Your task to perform on an android device: turn off notifications settings in the gmail app Image 0: 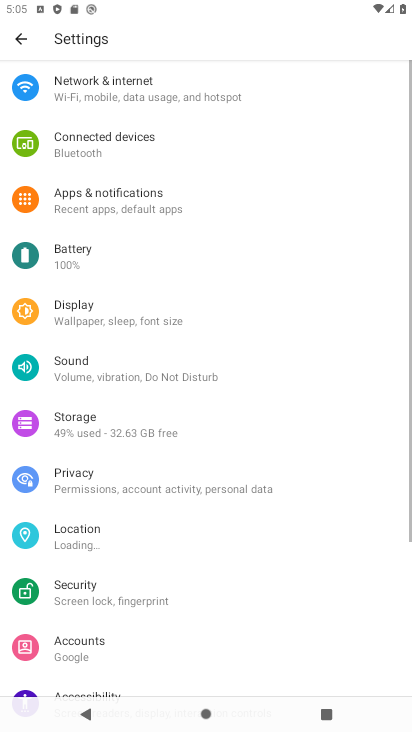
Step 0: press home button
Your task to perform on an android device: turn off notifications settings in the gmail app Image 1: 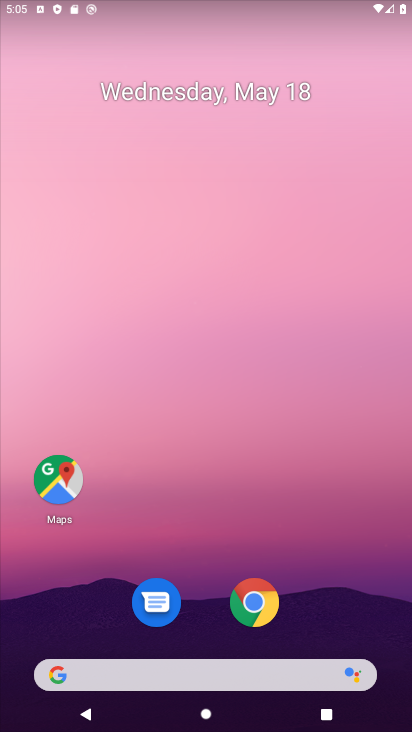
Step 1: drag from (240, 638) to (263, 19)
Your task to perform on an android device: turn off notifications settings in the gmail app Image 2: 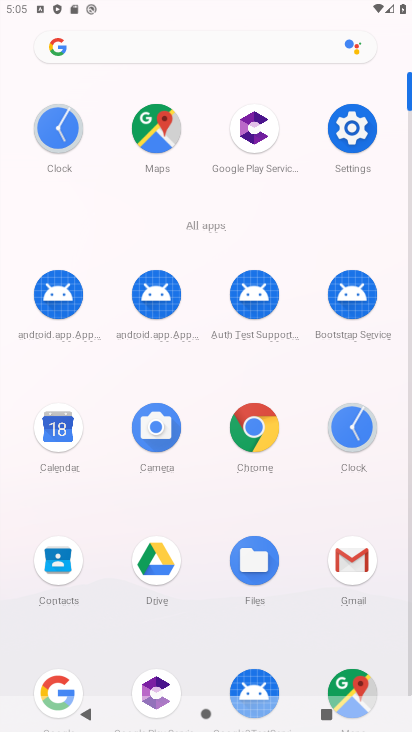
Step 2: click (358, 568)
Your task to perform on an android device: turn off notifications settings in the gmail app Image 3: 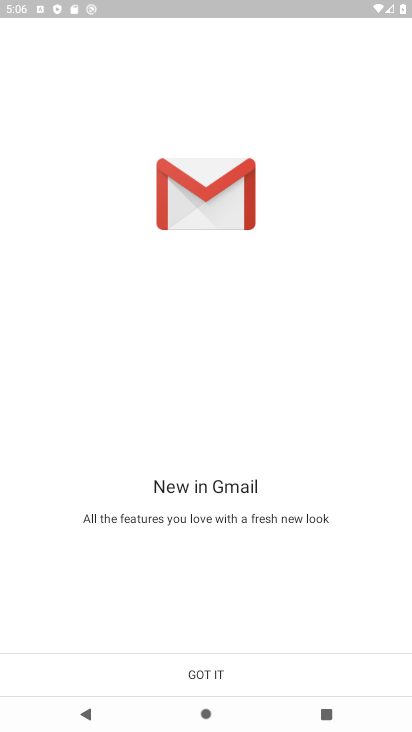
Step 3: click (184, 688)
Your task to perform on an android device: turn off notifications settings in the gmail app Image 4: 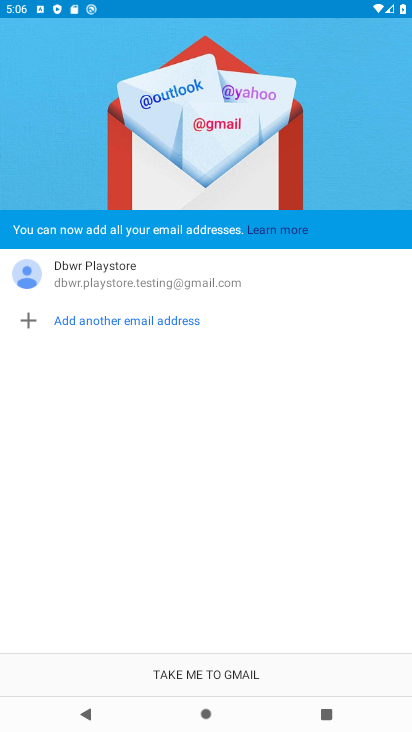
Step 4: click (206, 680)
Your task to perform on an android device: turn off notifications settings in the gmail app Image 5: 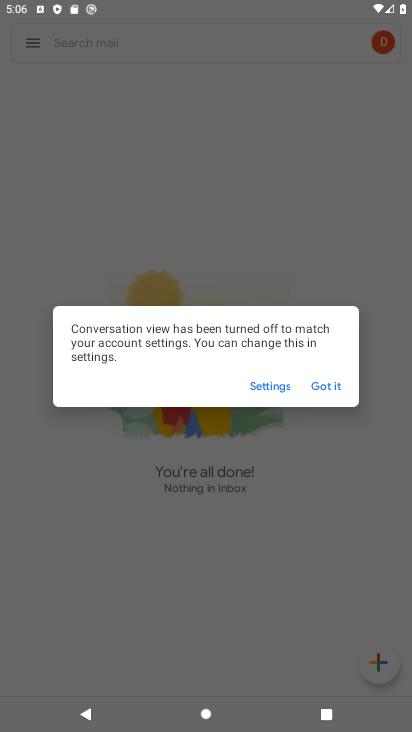
Step 5: click (317, 387)
Your task to perform on an android device: turn off notifications settings in the gmail app Image 6: 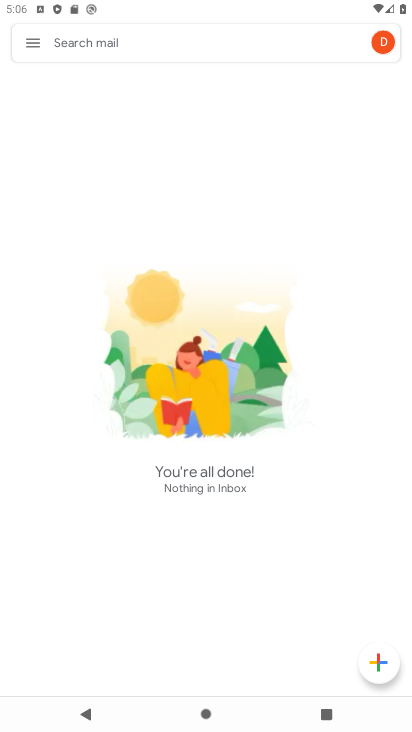
Step 6: click (38, 45)
Your task to perform on an android device: turn off notifications settings in the gmail app Image 7: 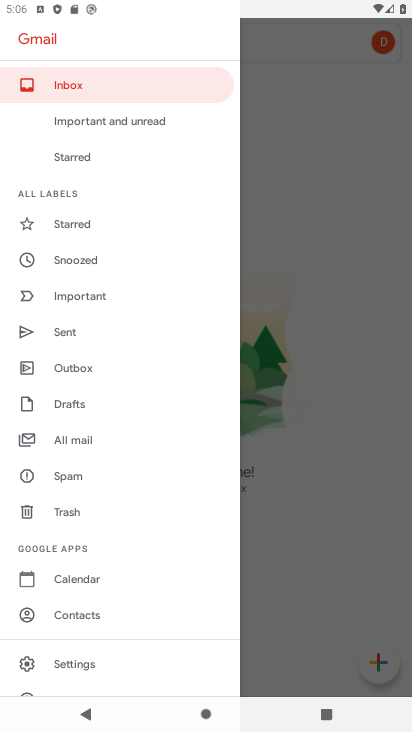
Step 7: drag from (157, 652) to (143, 174)
Your task to perform on an android device: turn off notifications settings in the gmail app Image 8: 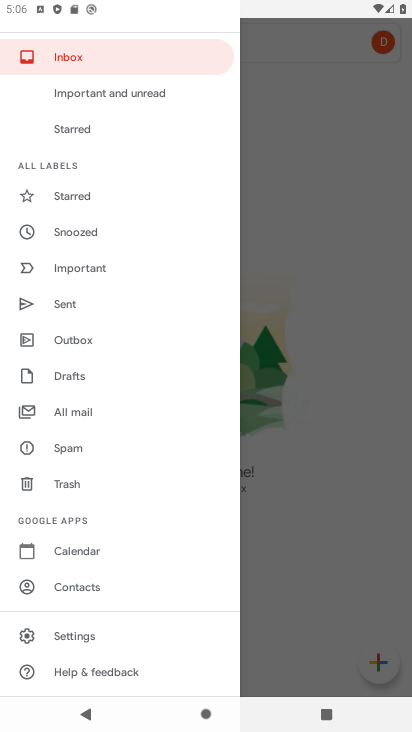
Step 8: click (107, 631)
Your task to perform on an android device: turn off notifications settings in the gmail app Image 9: 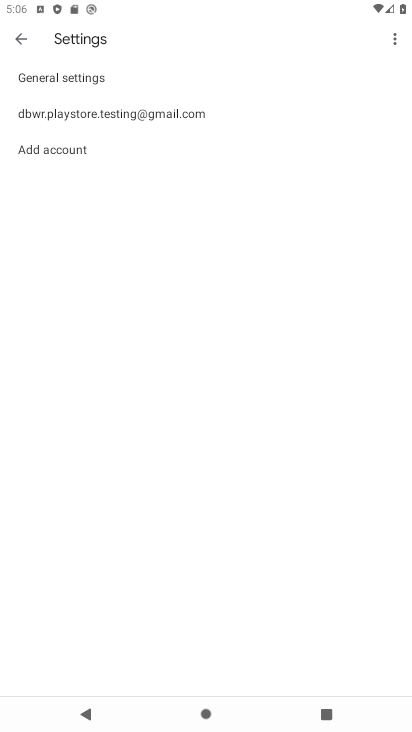
Step 9: click (156, 116)
Your task to perform on an android device: turn off notifications settings in the gmail app Image 10: 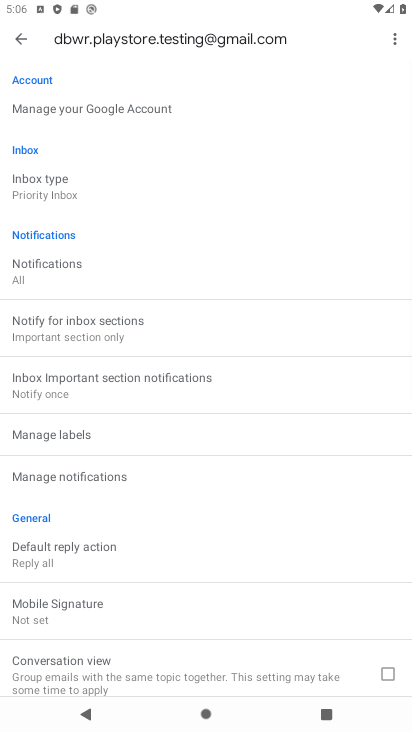
Step 10: click (78, 479)
Your task to perform on an android device: turn off notifications settings in the gmail app Image 11: 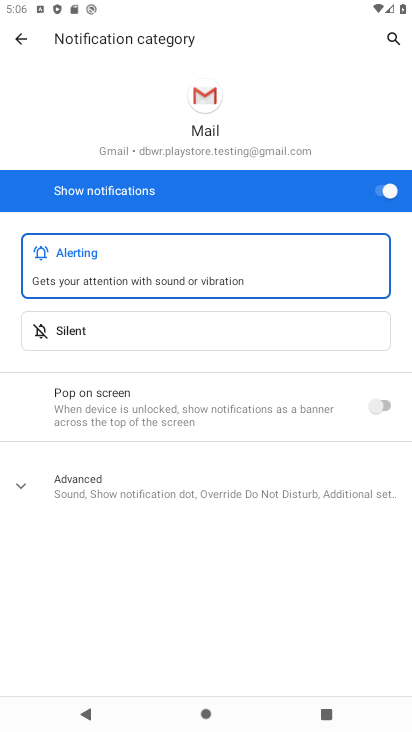
Step 11: click (381, 189)
Your task to perform on an android device: turn off notifications settings in the gmail app Image 12: 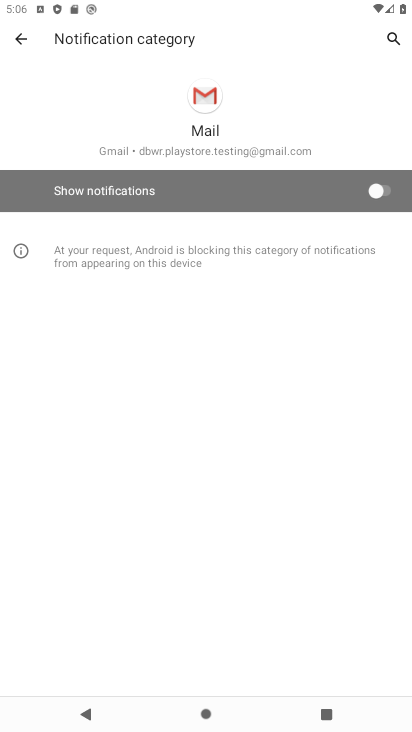
Step 12: task complete